Your task to perform on an android device: Go to eBay Image 0: 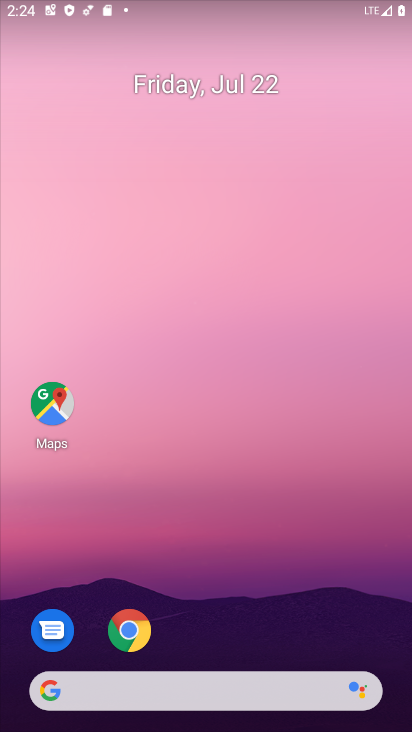
Step 0: drag from (201, 539) to (129, 59)
Your task to perform on an android device: Go to eBay Image 1: 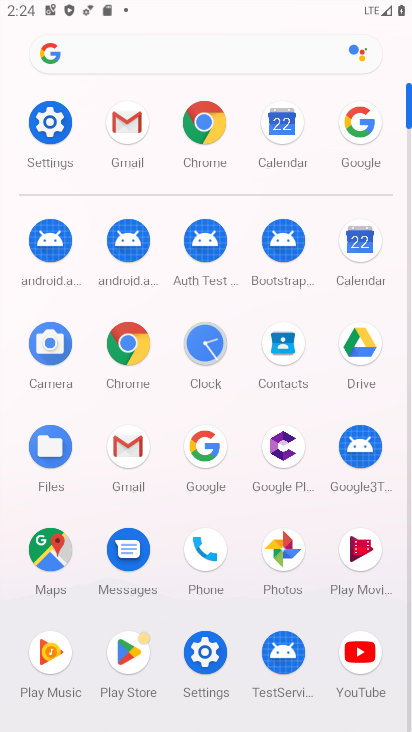
Step 1: click (149, 350)
Your task to perform on an android device: Go to eBay Image 2: 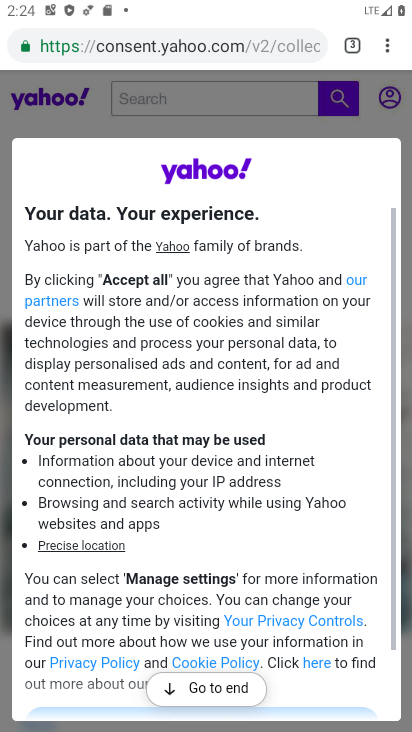
Step 2: click (346, 49)
Your task to perform on an android device: Go to eBay Image 3: 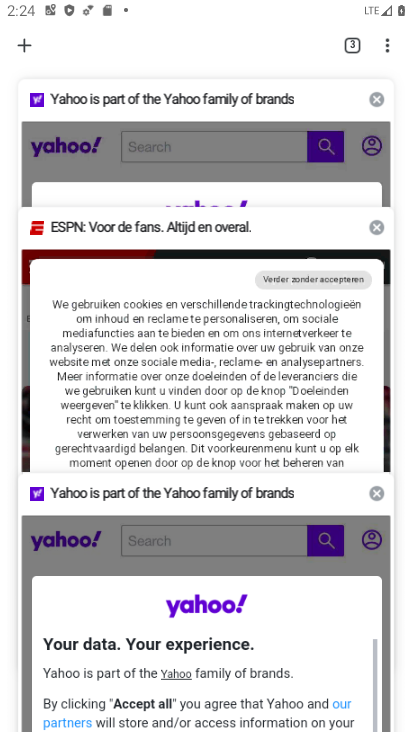
Step 3: click (23, 32)
Your task to perform on an android device: Go to eBay Image 4: 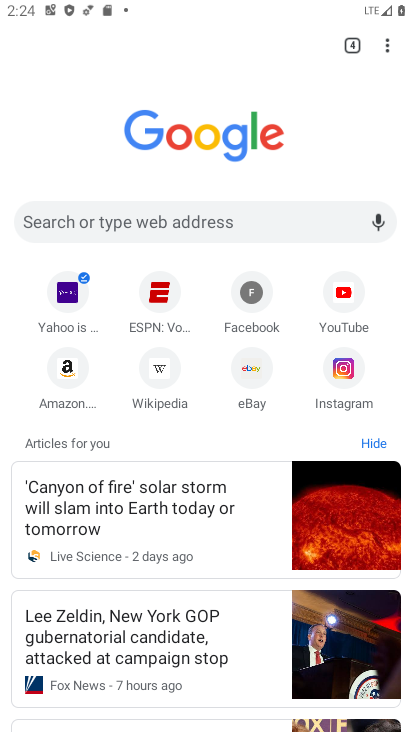
Step 4: click (242, 362)
Your task to perform on an android device: Go to eBay Image 5: 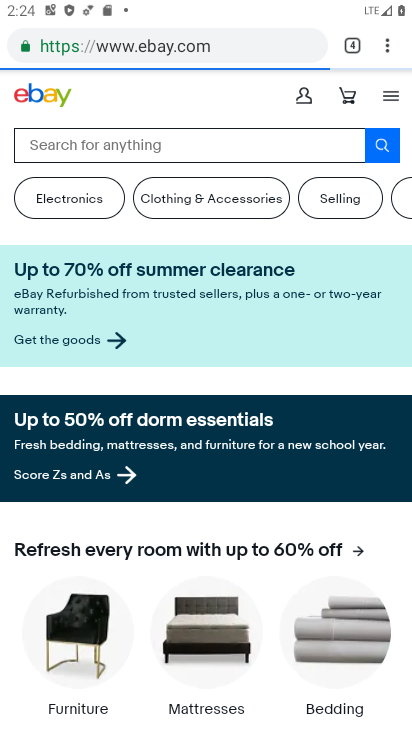
Step 5: task complete